Your task to perform on an android device: turn off location history Image 0: 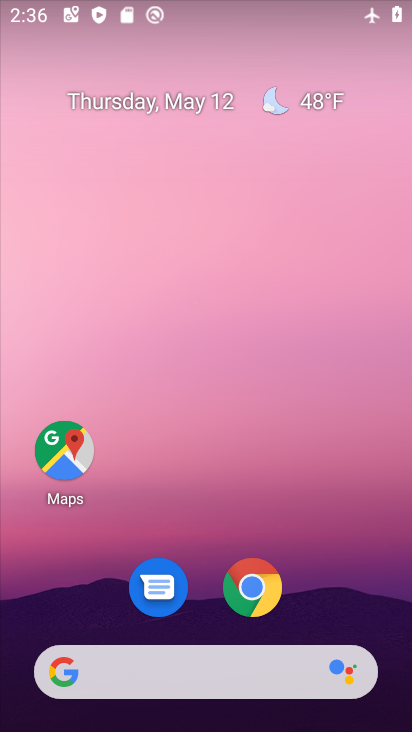
Step 0: drag from (220, 657) to (243, 231)
Your task to perform on an android device: turn off location history Image 1: 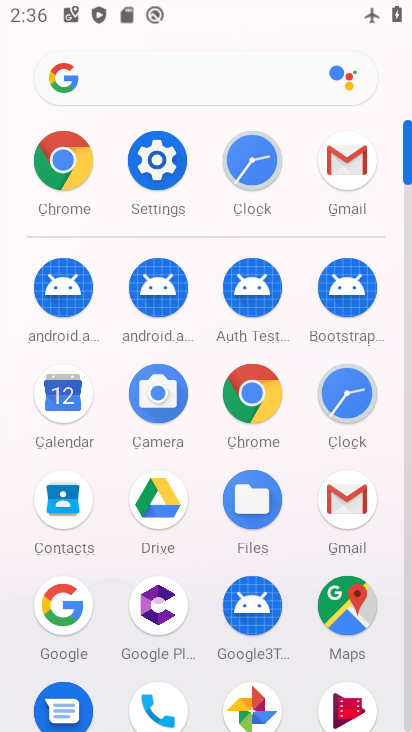
Step 1: click (177, 196)
Your task to perform on an android device: turn off location history Image 2: 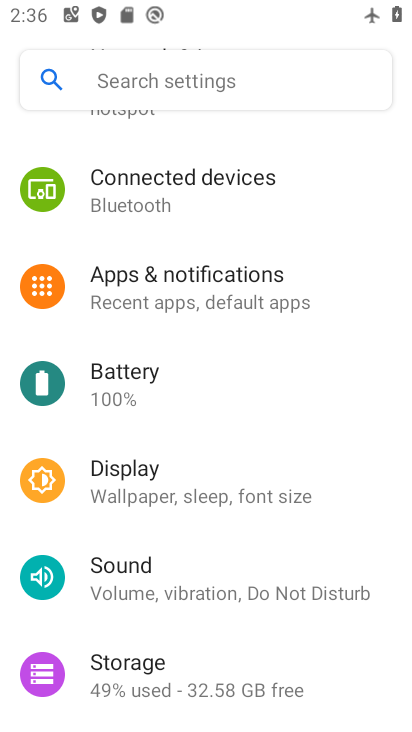
Step 2: drag from (217, 539) to (207, 330)
Your task to perform on an android device: turn off location history Image 3: 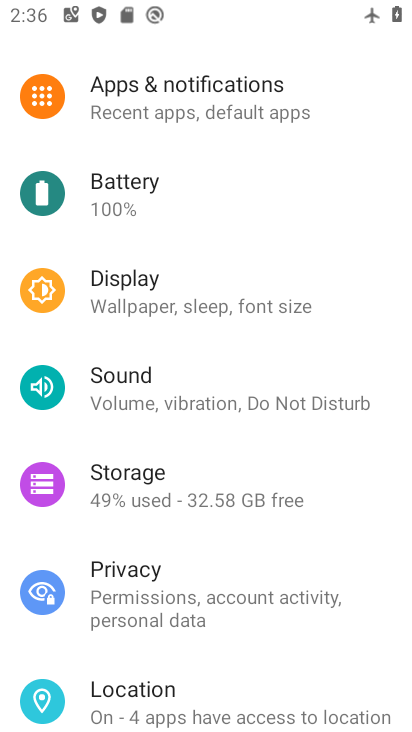
Step 3: click (203, 677)
Your task to perform on an android device: turn off location history Image 4: 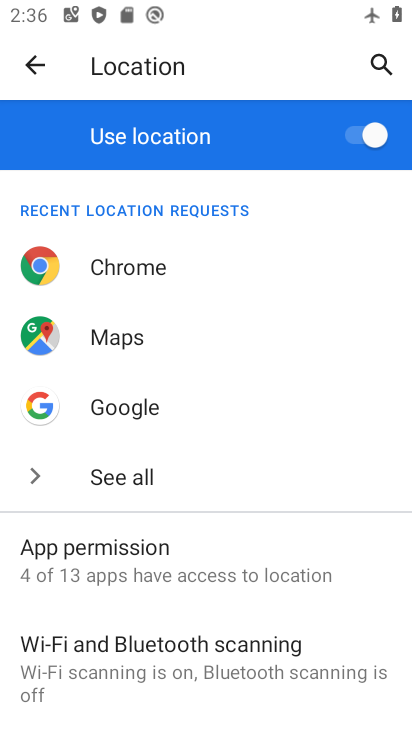
Step 4: drag from (228, 582) to (310, 350)
Your task to perform on an android device: turn off location history Image 5: 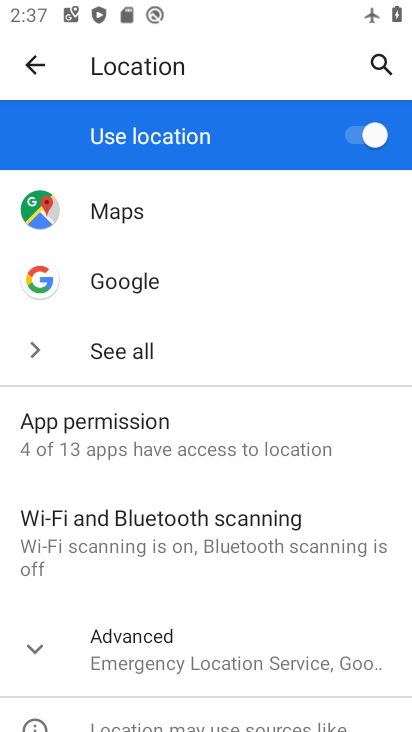
Step 5: click (232, 638)
Your task to perform on an android device: turn off location history Image 6: 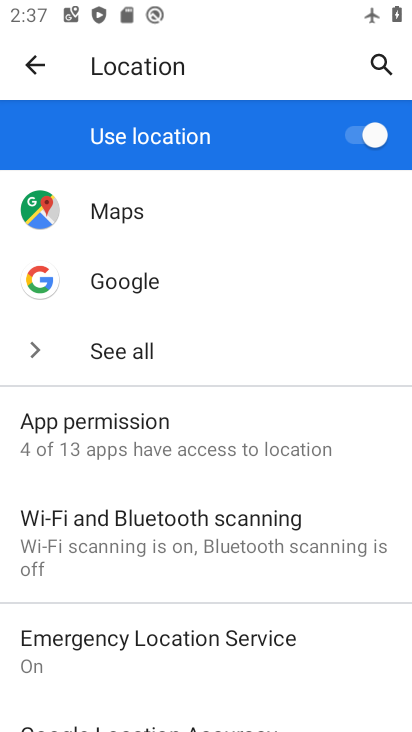
Step 6: drag from (263, 602) to (292, 502)
Your task to perform on an android device: turn off location history Image 7: 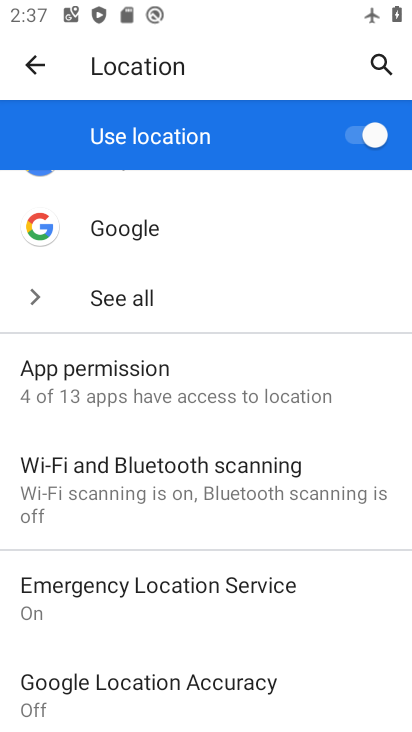
Step 7: drag from (244, 646) to (255, 411)
Your task to perform on an android device: turn off location history Image 8: 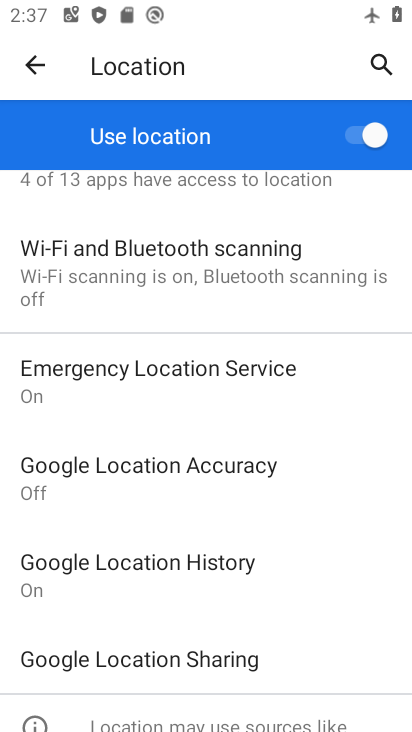
Step 8: click (225, 599)
Your task to perform on an android device: turn off location history Image 9: 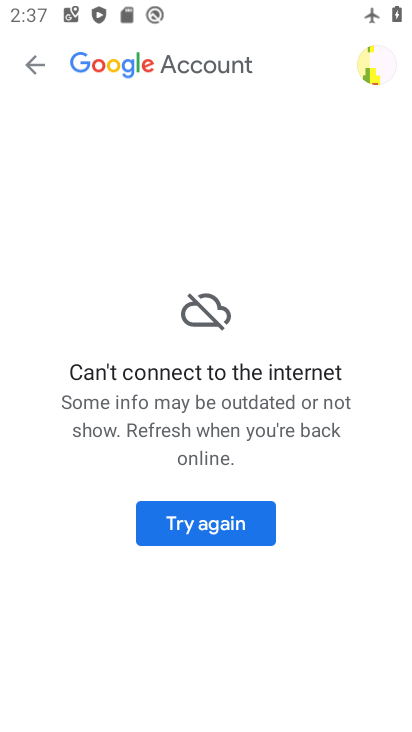
Step 9: task complete